Your task to perform on an android device: Open Chrome and go to the settings page Image 0: 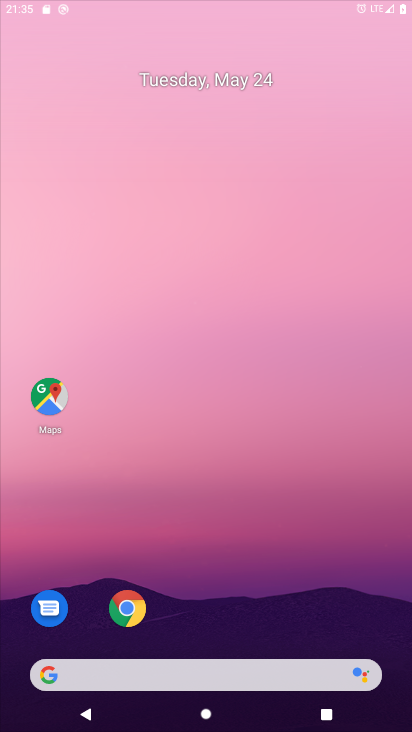
Step 0: click (296, 216)
Your task to perform on an android device: Open Chrome and go to the settings page Image 1: 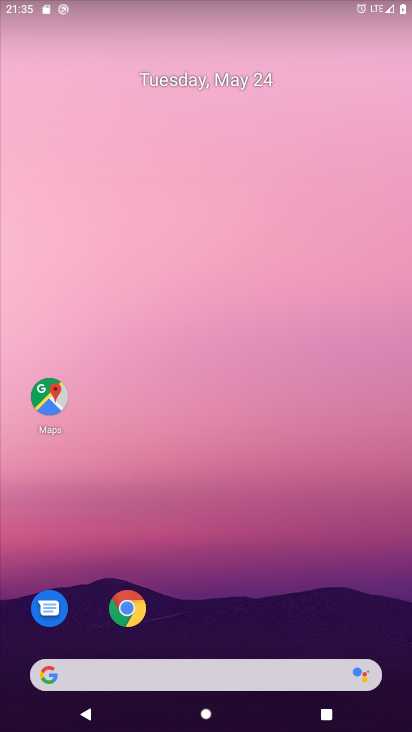
Step 1: click (132, 614)
Your task to perform on an android device: Open Chrome and go to the settings page Image 2: 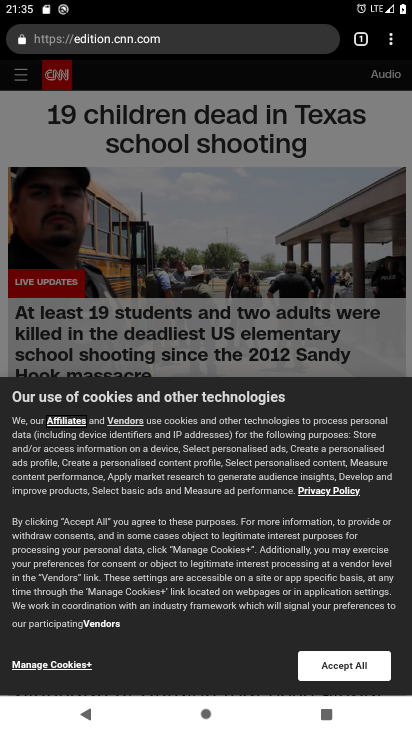
Step 2: click (391, 43)
Your task to perform on an android device: Open Chrome and go to the settings page Image 3: 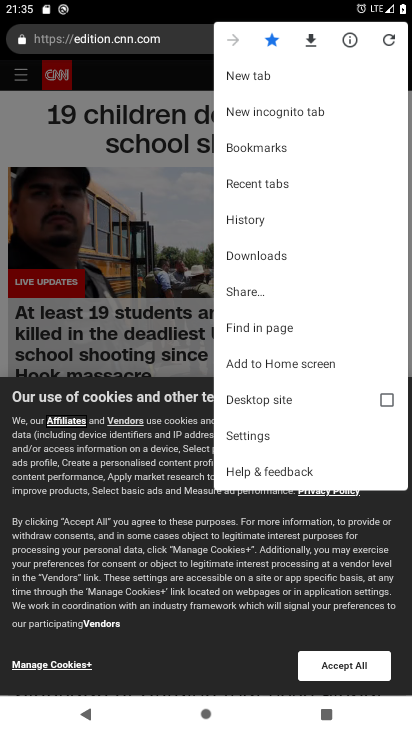
Step 3: click (259, 431)
Your task to perform on an android device: Open Chrome and go to the settings page Image 4: 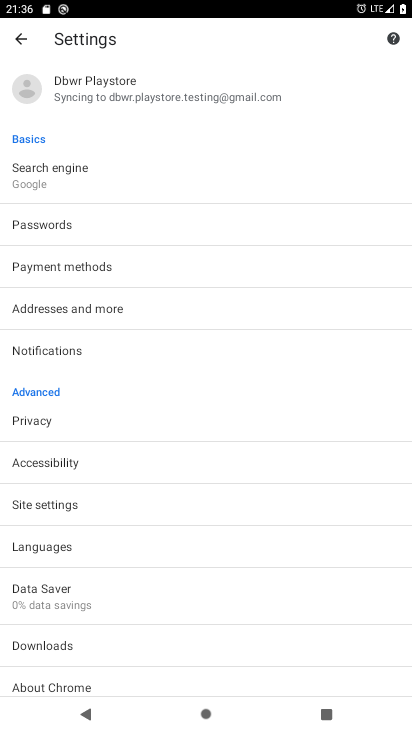
Step 4: task complete